Your task to perform on an android device: toggle airplane mode Image 0: 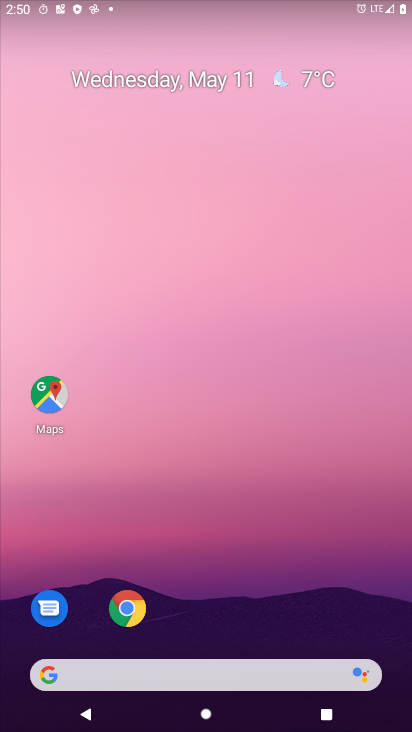
Step 0: drag from (211, 607) to (236, 55)
Your task to perform on an android device: toggle airplane mode Image 1: 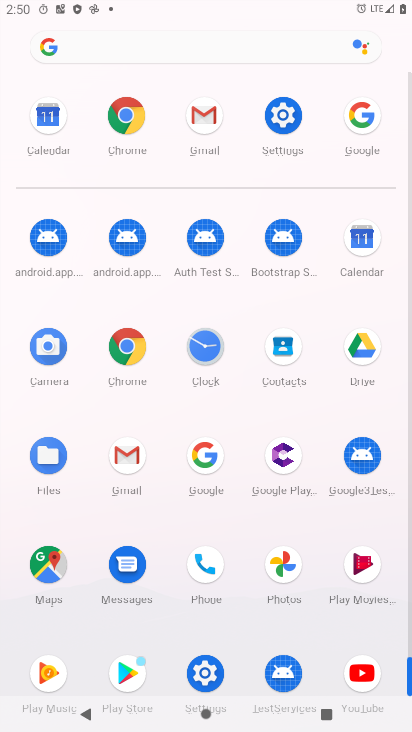
Step 1: click (287, 117)
Your task to perform on an android device: toggle airplane mode Image 2: 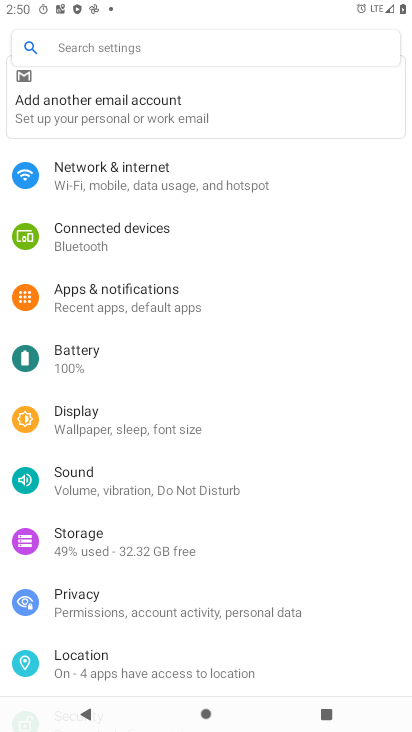
Step 2: click (154, 165)
Your task to perform on an android device: toggle airplane mode Image 3: 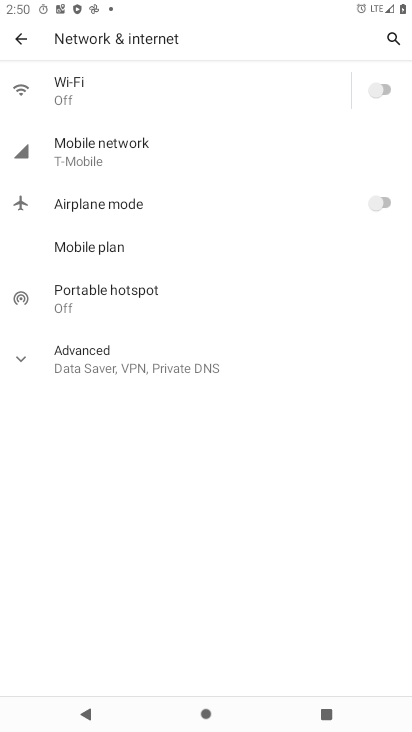
Step 3: click (370, 199)
Your task to perform on an android device: toggle airplane mode Image 4: 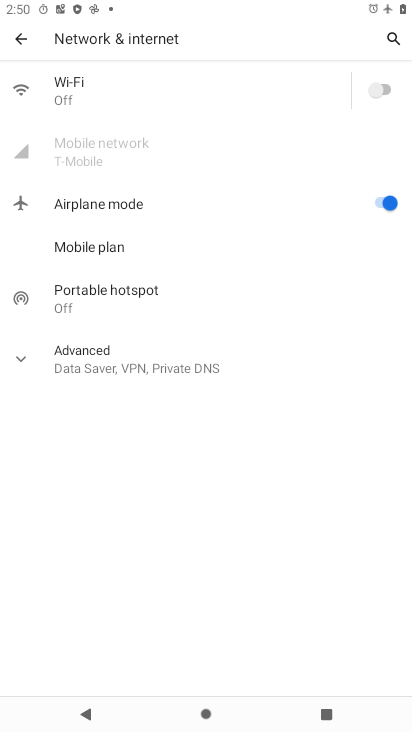
Step 4: task complete